Your task to perform on an android device: What's the weather going to be tomorrow? Image 0: 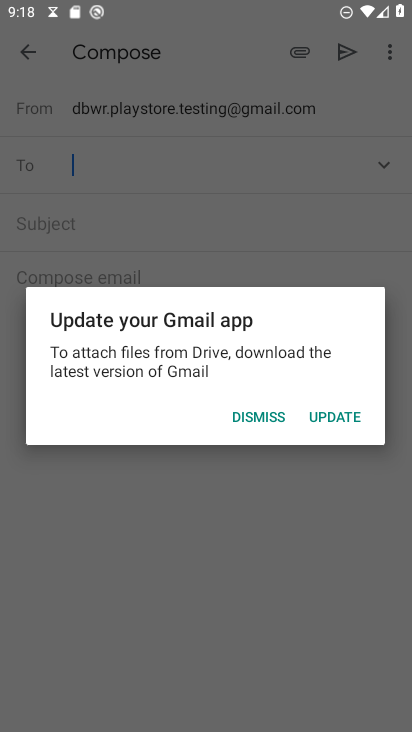
Step 0: press home button
Your task to perform on an android device: What's the weather going to be tomorrow? Image 1: 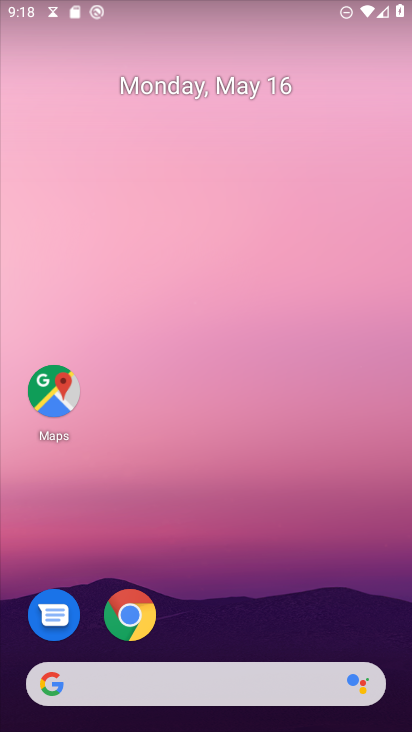
Step 1: click (146, 671)
Your task to perform on an android device: What's the weather going to be tomorrow? Image 2: 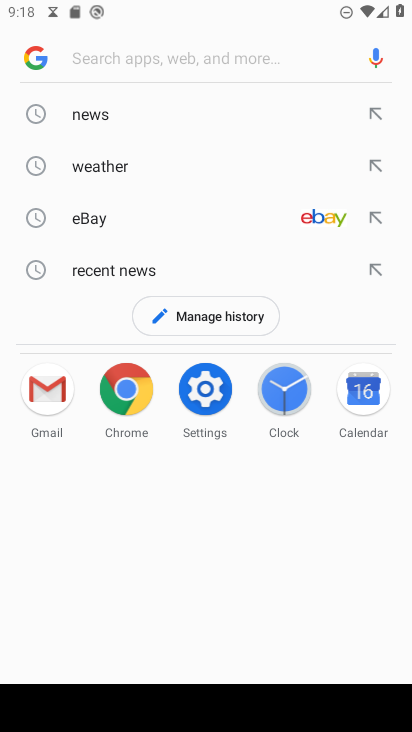
Step 2: click (159, 170)
Your task to perform on an android device: What's the weather going to be tomorrow? Image 3: 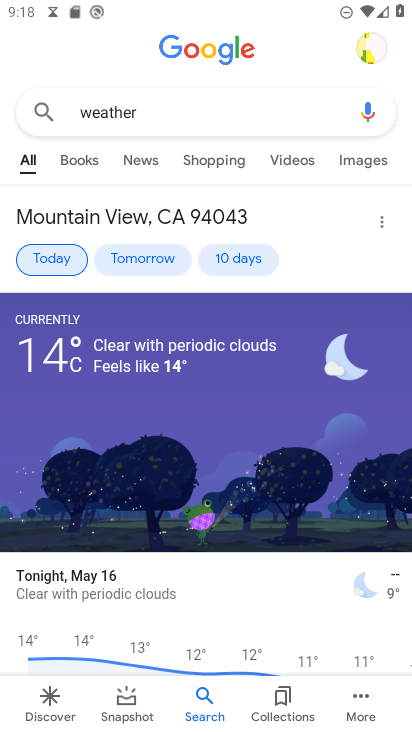
Step 3: task complete